Your task to perform on an android device: move a message to another label in the gmail app Image 0: 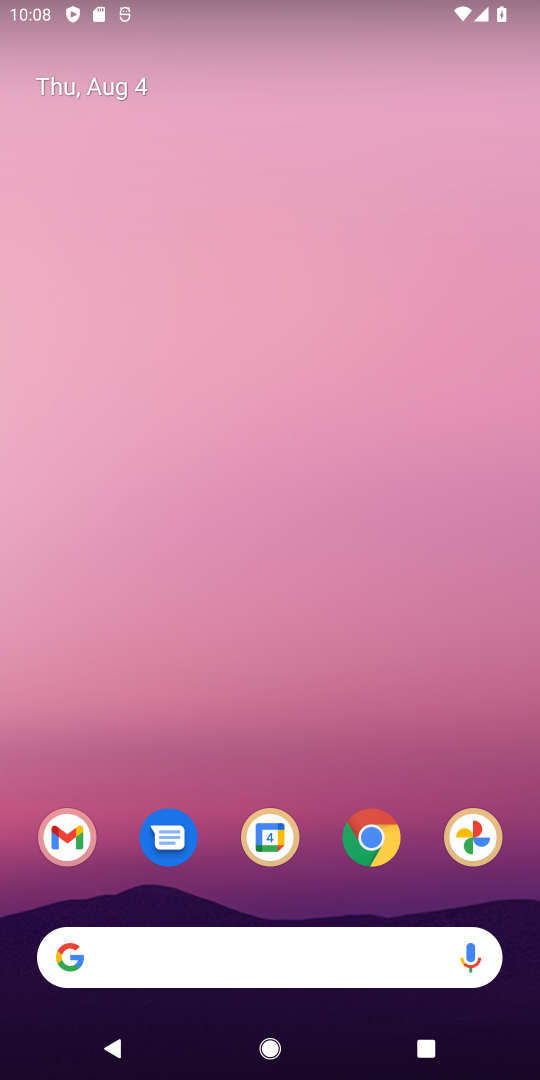
Step 0: drag from (330, 799) to (221, 50)
Your task to perform on an android device: move a message to another label in the gmail app Image 1: 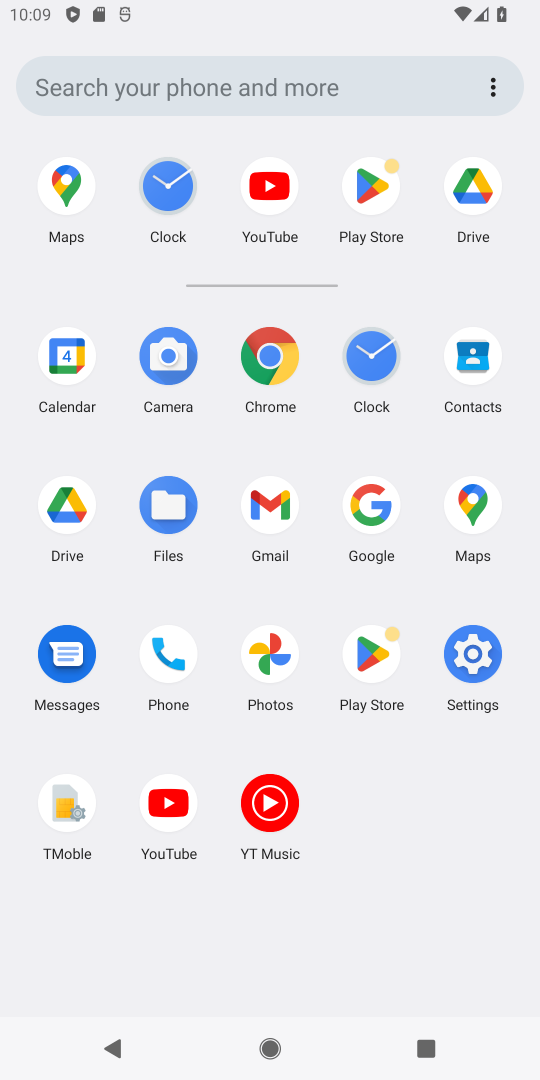
Step 1: click (259, 506)
Your task to perform on an android device: move a message to another label in the gmail app Image 2: 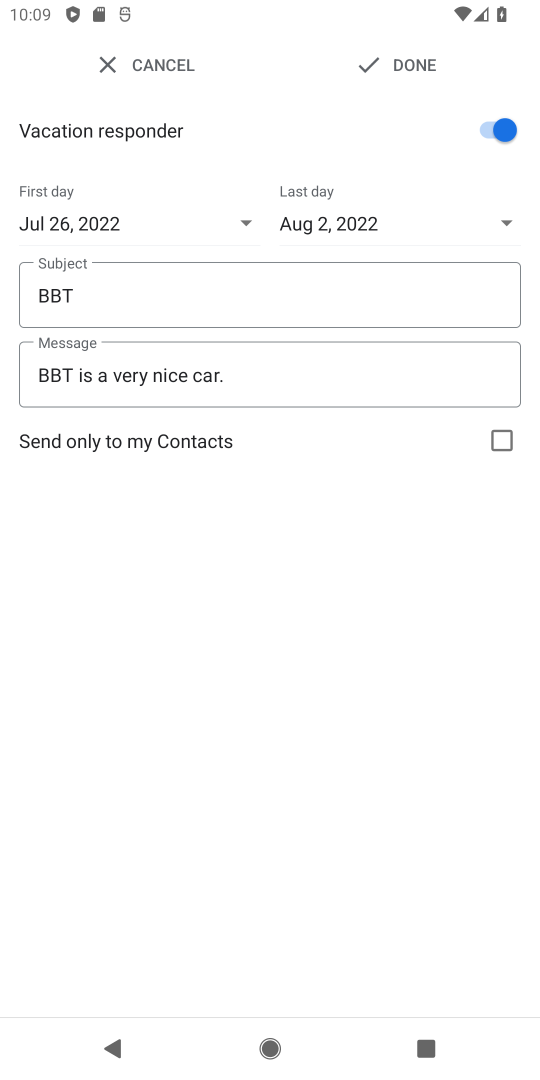
Step 2: press back button
Your task to perform on an android device: move a message to another label in the gmail app Image 3: 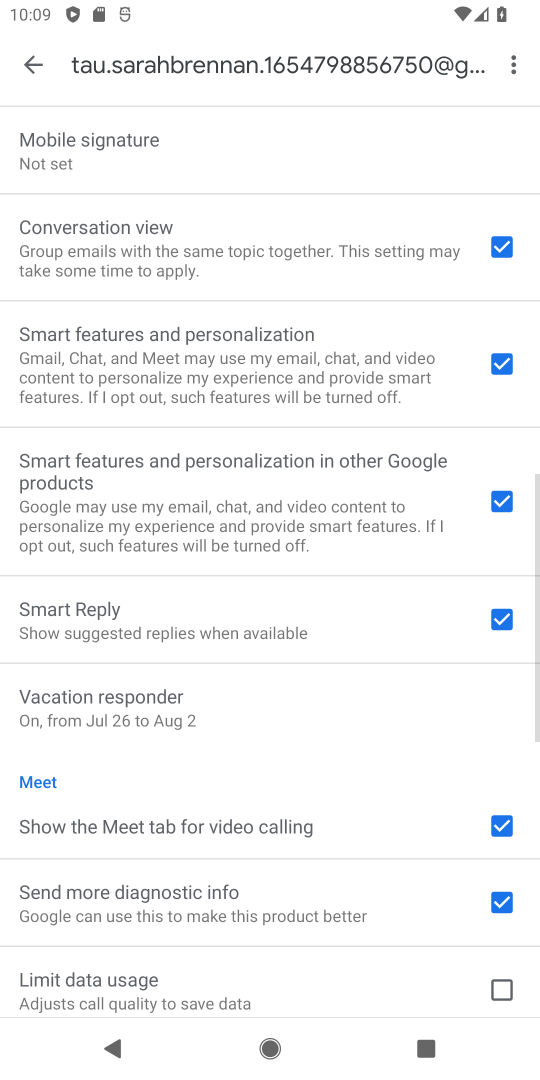
Step 3: press back button
Your task to perform on an android device: move a message to another label in the gmail app Image 4: 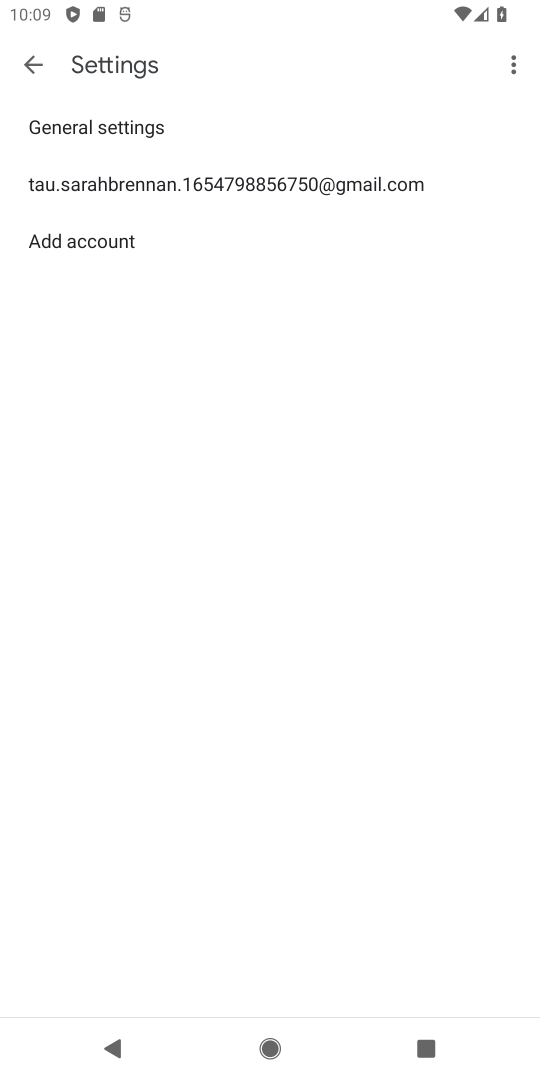
Step 4: press back button
Your task to perform on an android device: move a message to another label in the gmail app Image 5: 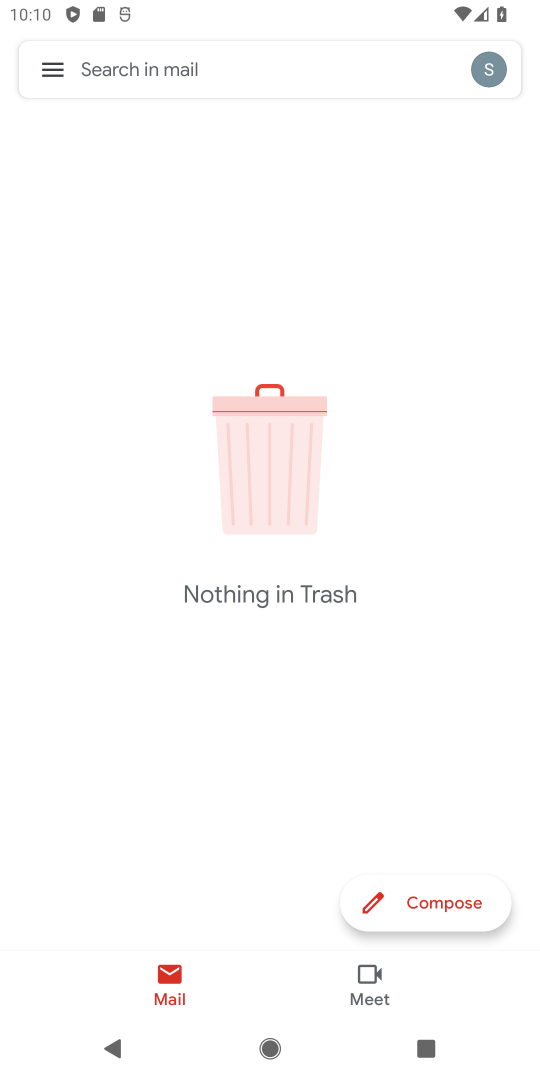
Step 5: click (69, 67)
Your task to perform on an android device: move a message to another label in the gmail app Image 6: 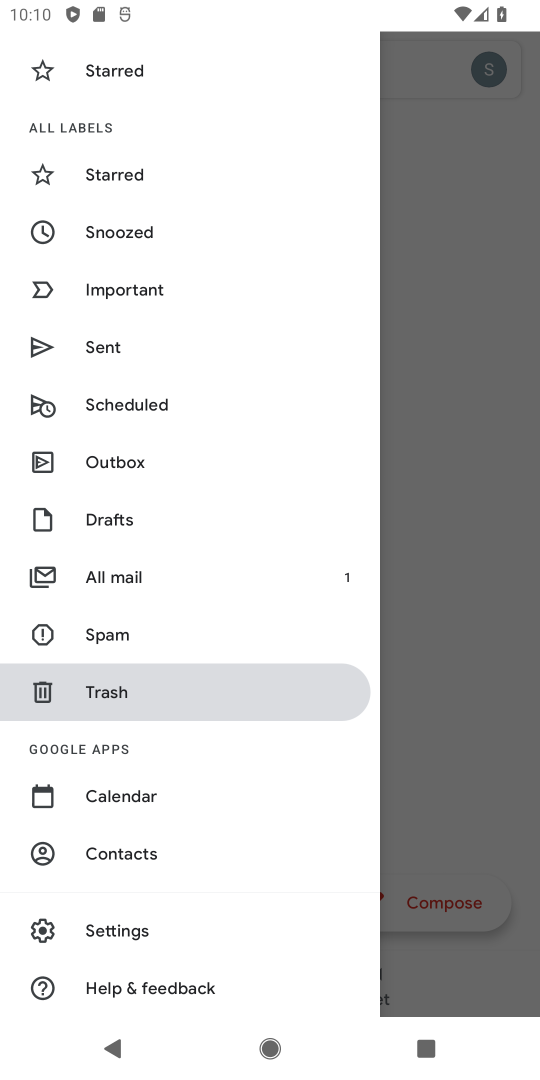
Step 6: drag from (146, 240) to (210, 847)
Your task to perform on an android device: move a message to another label in the gmail app Image 7: 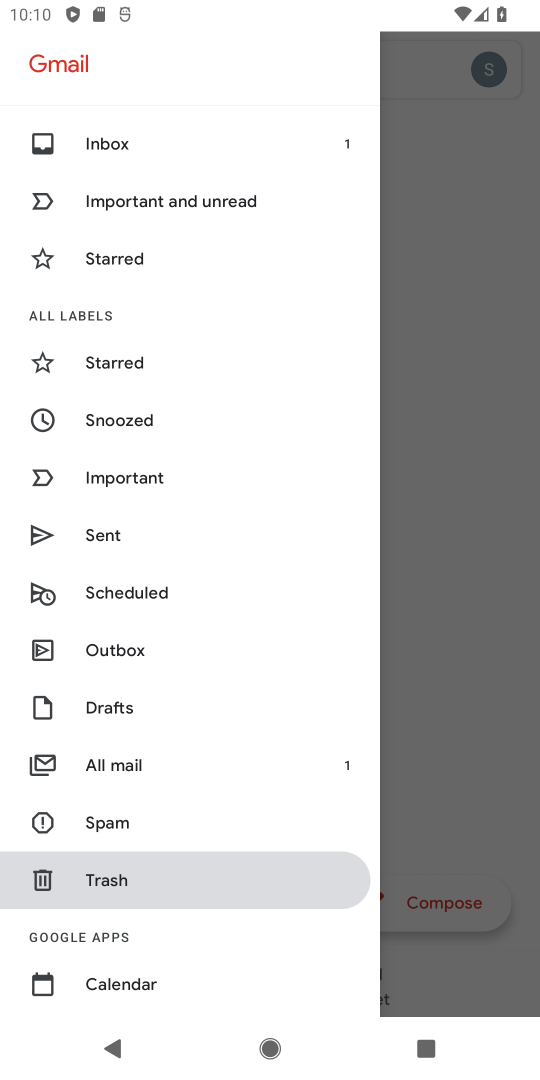
Step 7: click (120, 154)
Your task to perform on an android device: move a message to another label in the gmail app Image 8: 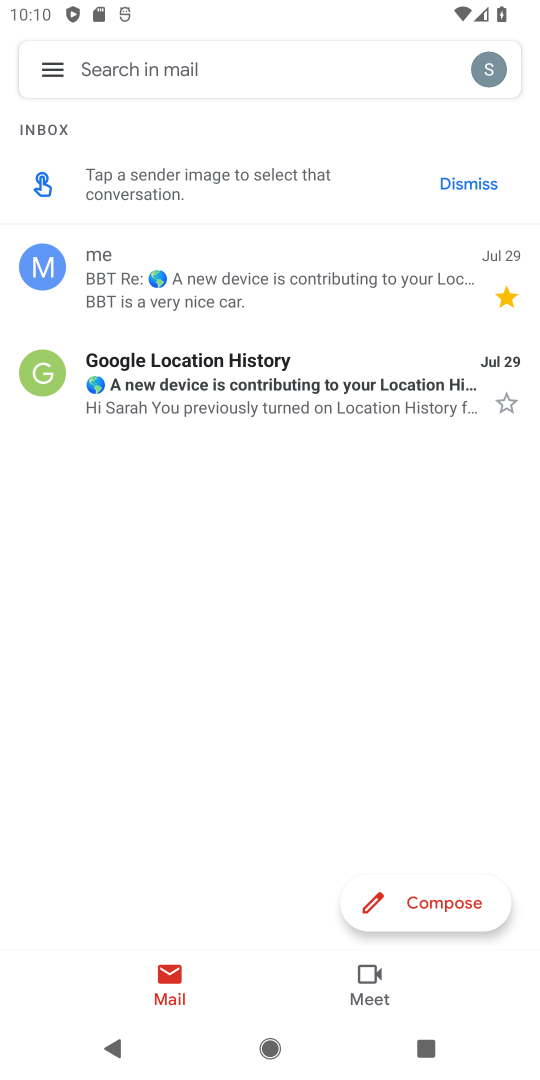
Step 8: task complete